Your task to perform on an android device: Search for Mexican restaurants on Maps Image 0: 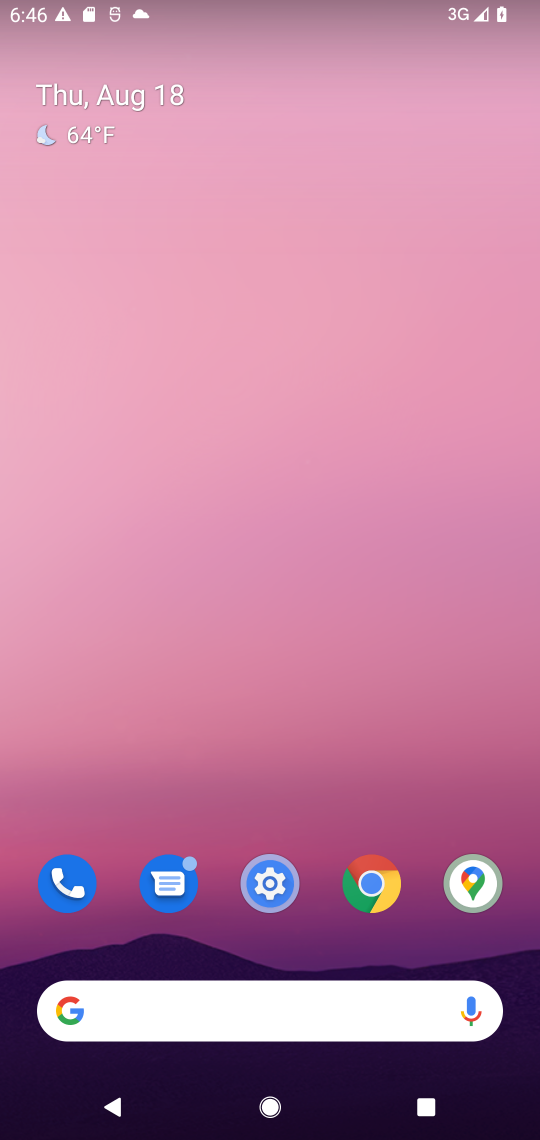
Step 0: click (483, 866)
Your task to perform on an android device: Search for Mexican restaurants on Maps Image 1: 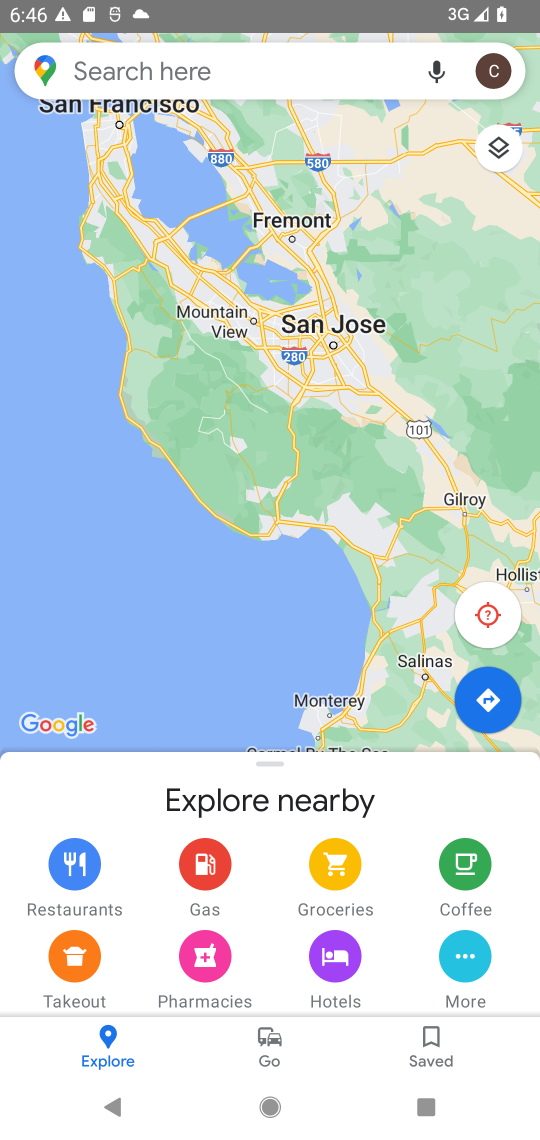
Step 1: click (116, 63)
Your task to perform on an android device: Search for Mexican restaurants on Maps Image 2: 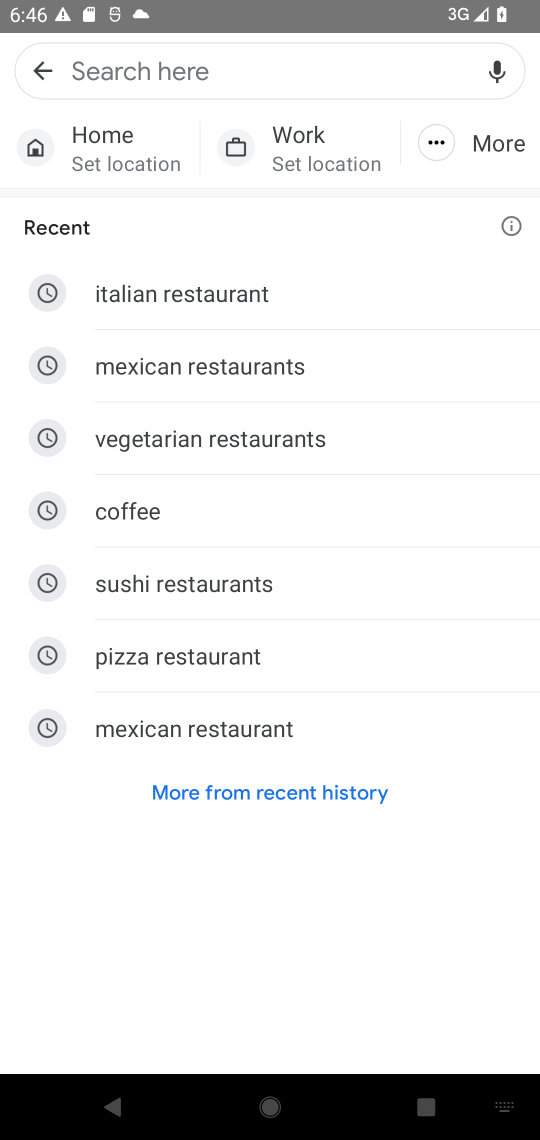
Step 2: click (185, 346)
Your task to perform on an android device: Search for Mexican restaurants on Maps Image 3: 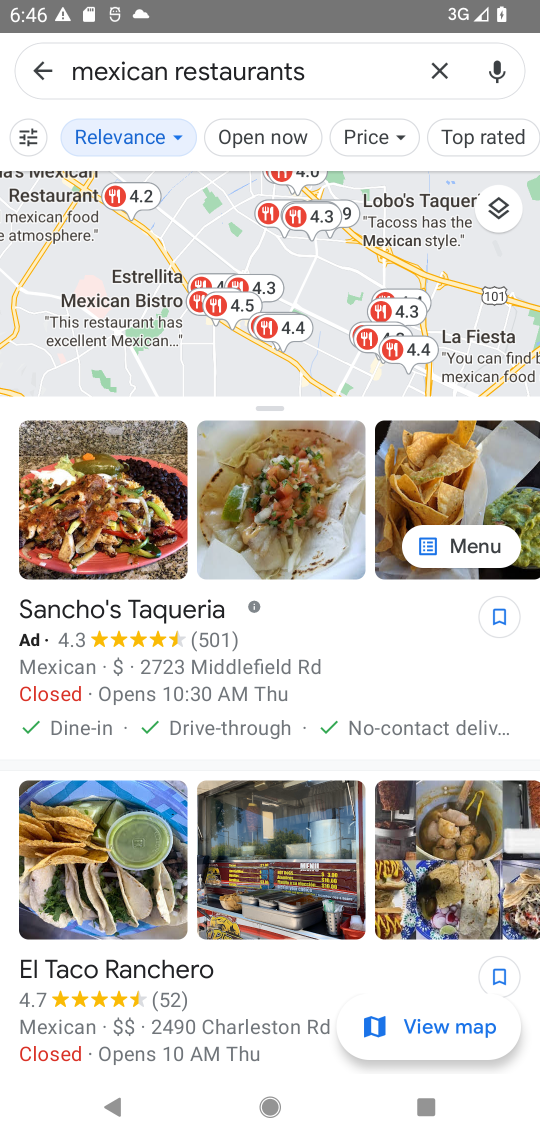
Step 3: task complete